Your task to perform on an android device: find which apps use the phone's location Image 0: 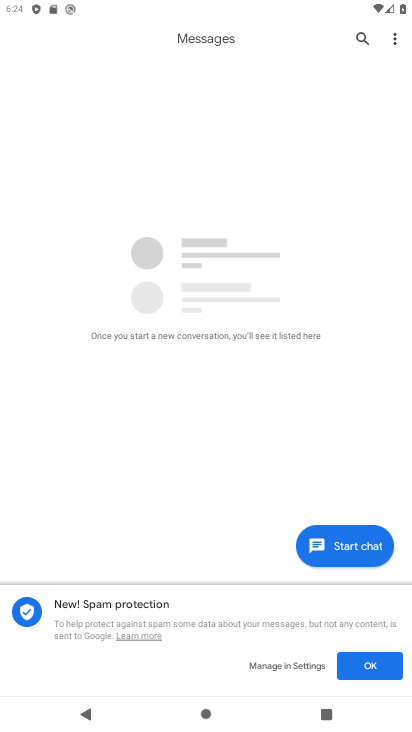
Step 0: press home button
Your task to perform on an android device: find which apps use the phone's location Image 1: 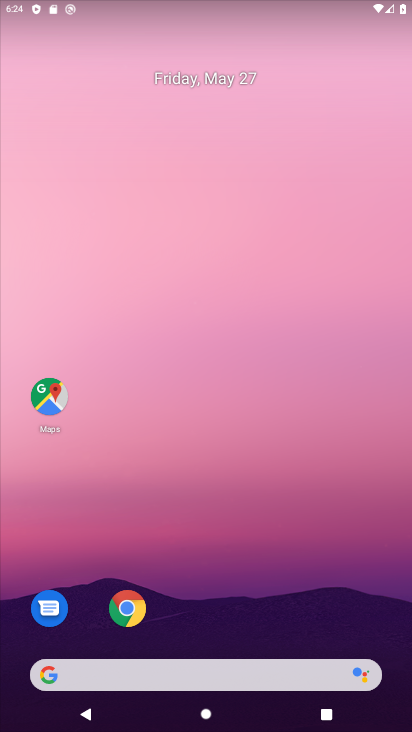
Step 1: drag from (207, 620) to (249, 60)
Your task to perform on an android device: find which apps use the phone's location Image 2: 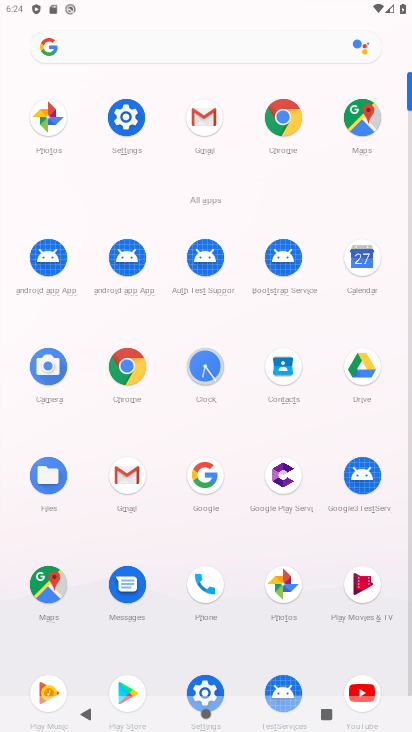
Step 2: click (127, 107)
Your task to perform on an android device: find which apps use the phone's location Image 3: 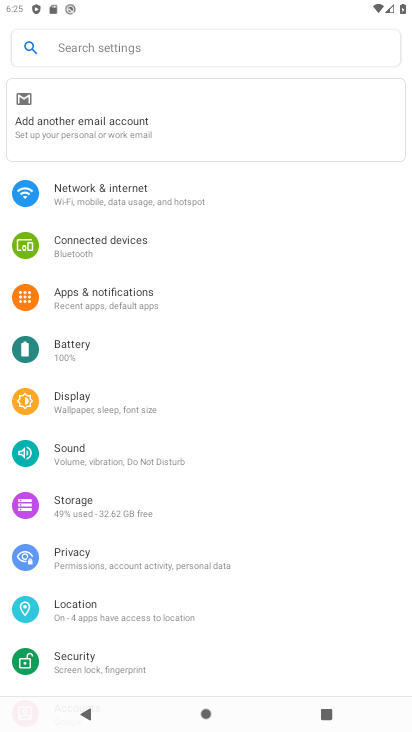
Step 3: click (113, 603)
Your task to perform on an android device: find which apps use the phone's location Image 4: 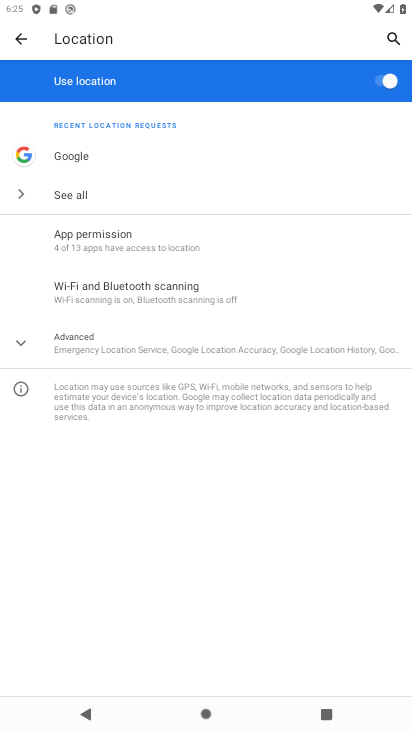
Step 4: click (119, 228)
Your task to perform on an android device: find which apps use the phone's location Image 5: 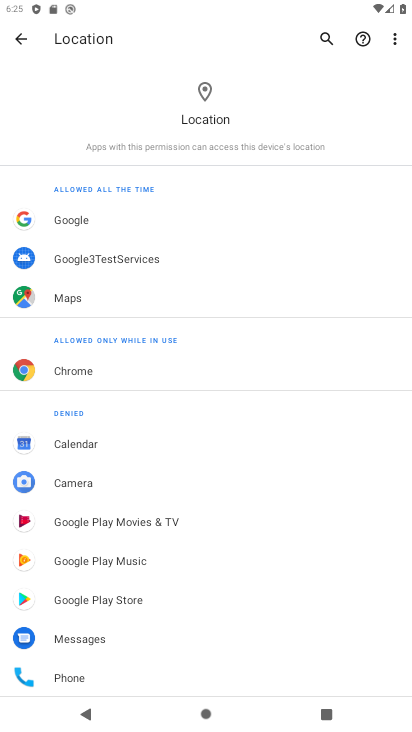
Step 5: task complete